Your task to perform on an android device: Go to Wikipedia Image 0: 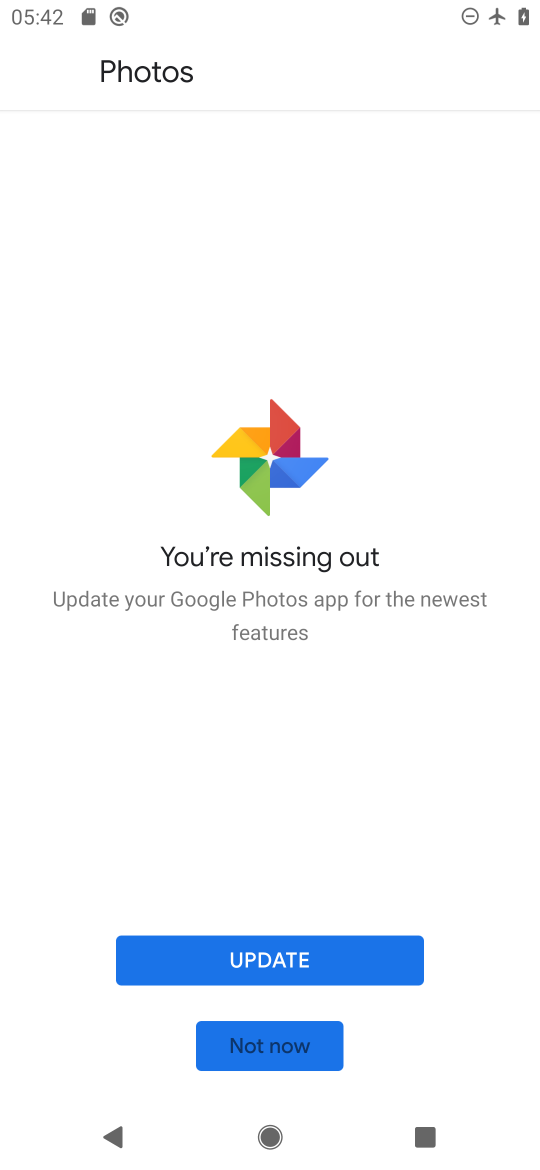
Step 0: press back button
Your task to perform on an android device: Go to Wikipedia Image 1: 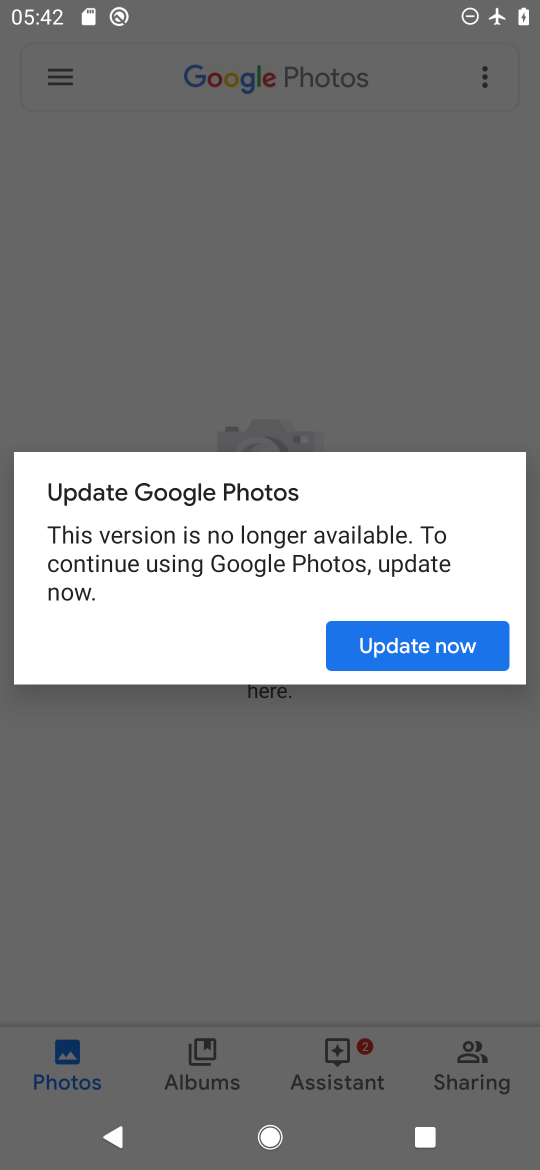
Step 1: press home button
Your task to perform on an android device: Go to Wikipedia Image 2: 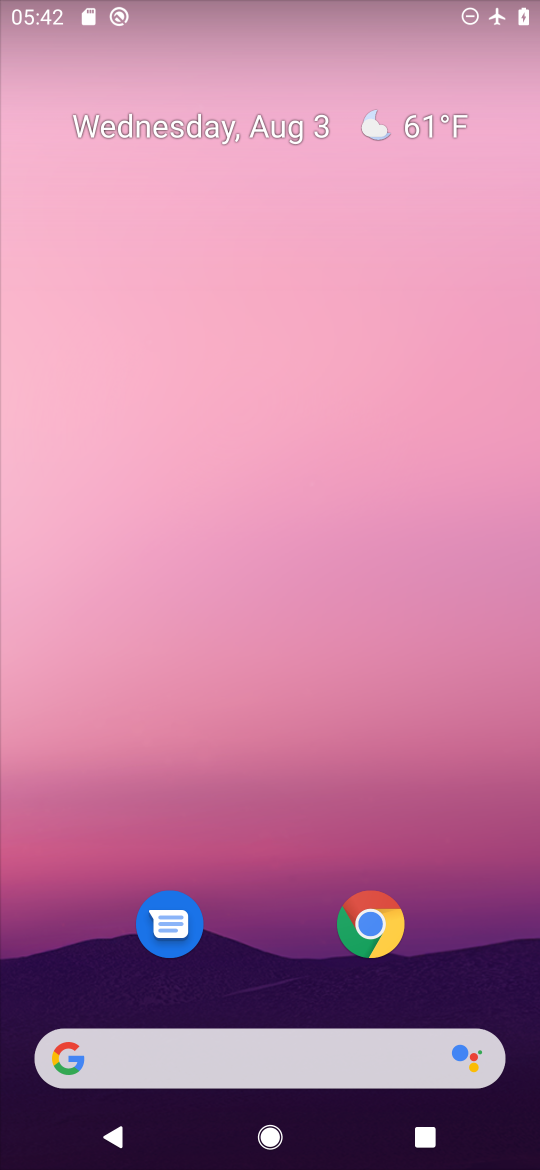
Step 2: click (366, 906)
Your task to perform on an android device: Go to Wikipedia Image 3: 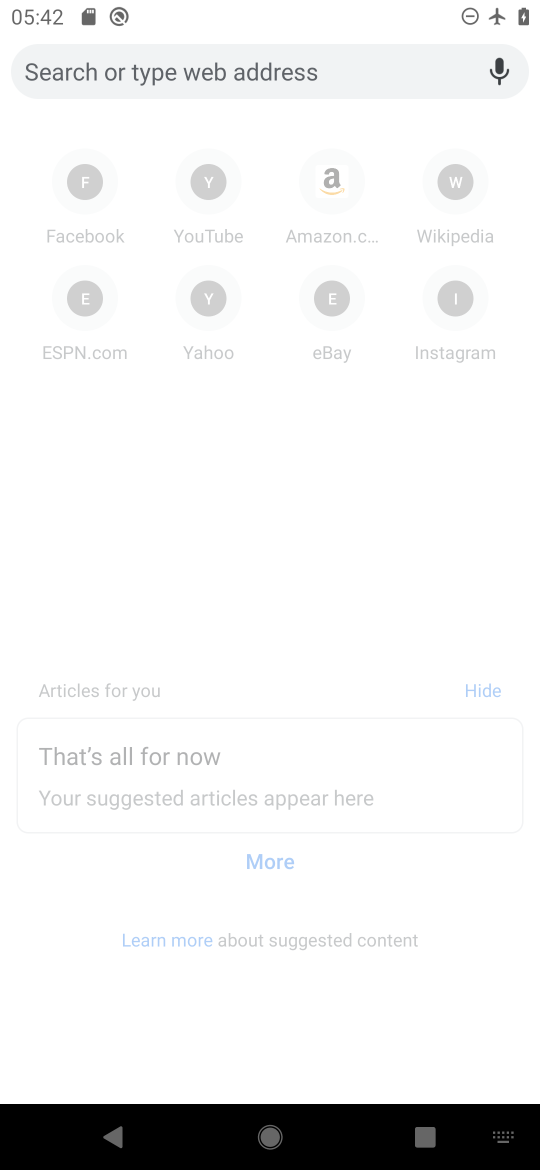
Step 3: click (443, 218)
Your task to perform on an android device: Go to Wikipedia Image 4: 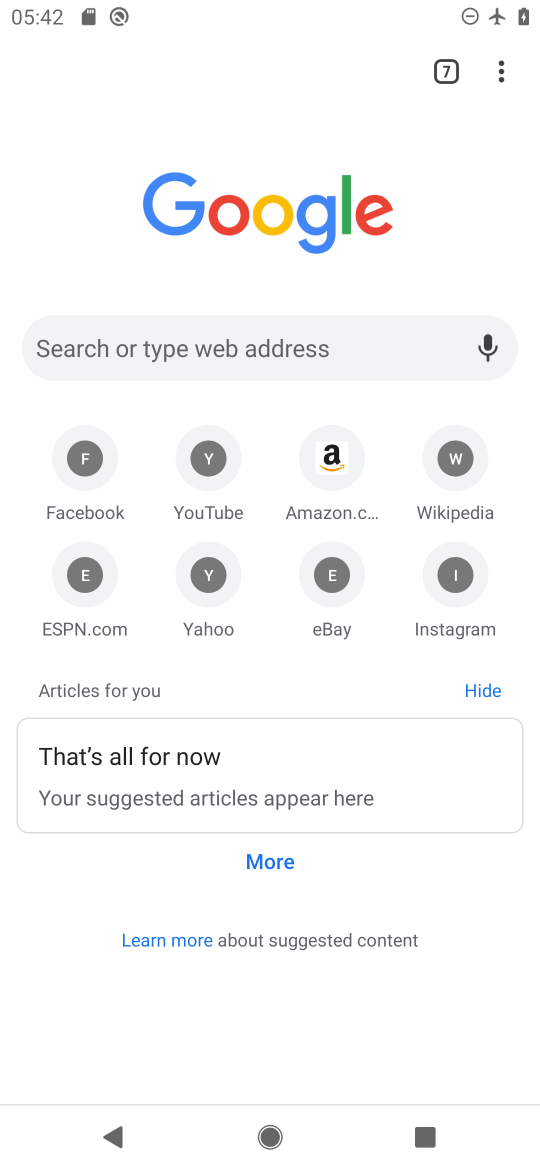
Step 4: click (455, 459)
Your task to perform on an android device: Go to Wikipedia Image 5: 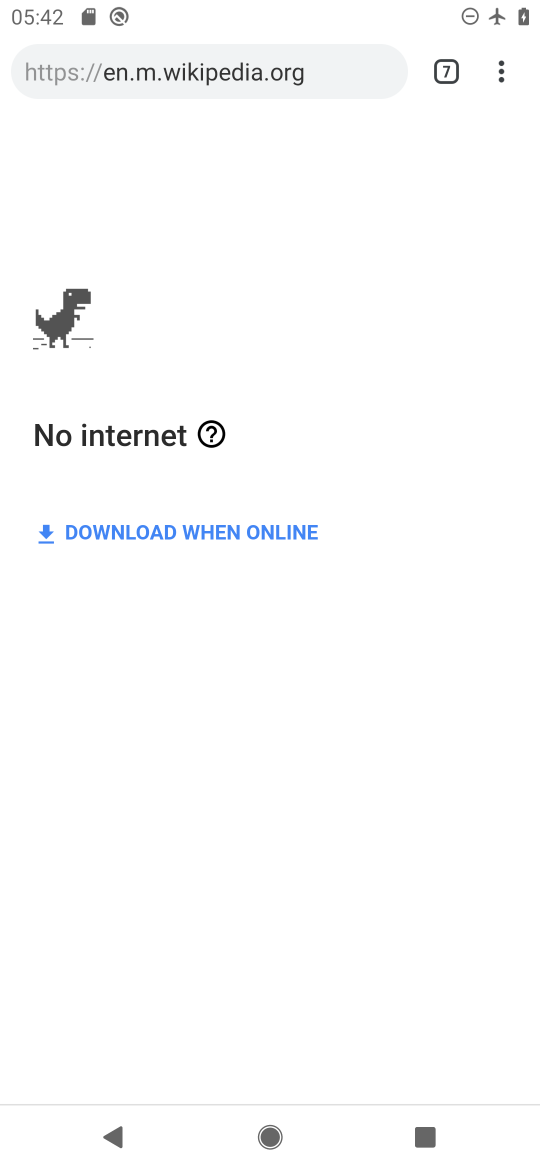
Step 5: task complete